Your task to perform on an android device: Open the calendar app, open the side menu, and click the "Day" option Image 0: 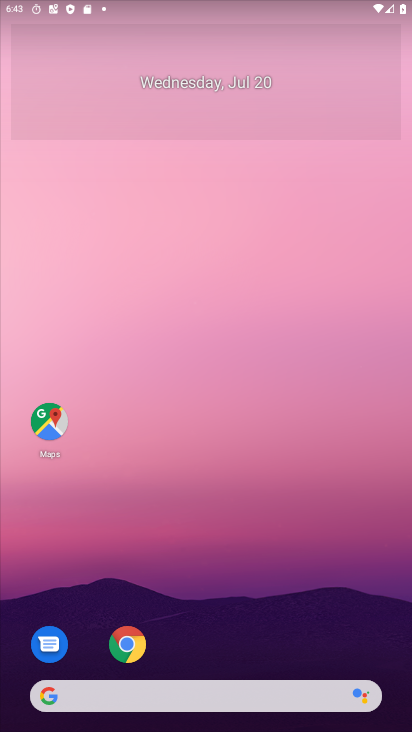
Step 0: press home button
Your task to perform on an android device: Open the calendar app, open the side menu, and click the "Day" option Image 1: 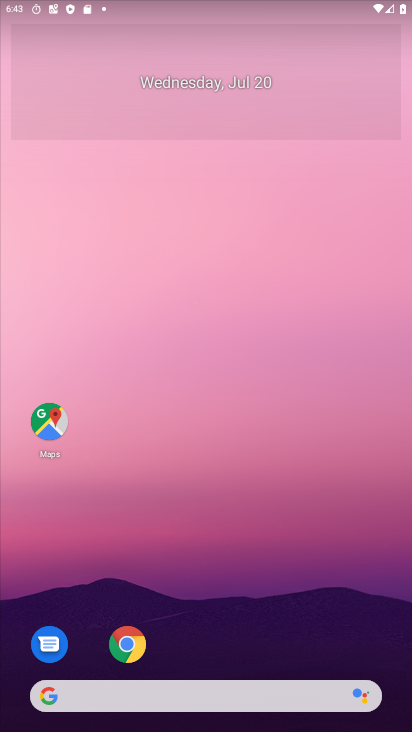
Step 1: drag from (271, 640) to (301, 7)
Your task to perform on an android device: Open the calendar app, open the side menu, and click the "Day" option Image 2: 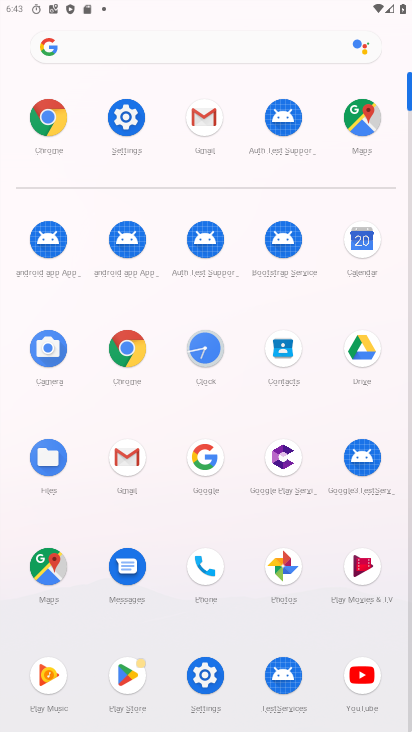
Step 2: click (360, 247)
Your task to perform on an android device: Open the calendar app, open the side menu, and click the "Day" option Image 3: 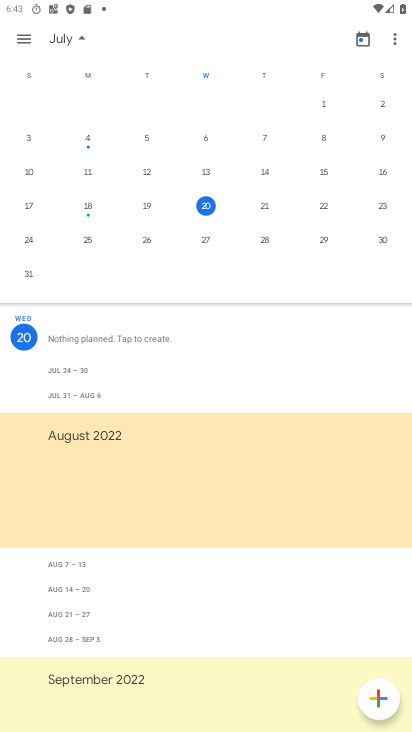
Step 3: click (29, 39)
Your task to perform on an android device: Open the calendar app, open the side menu, and click the "Day" option Image 4: 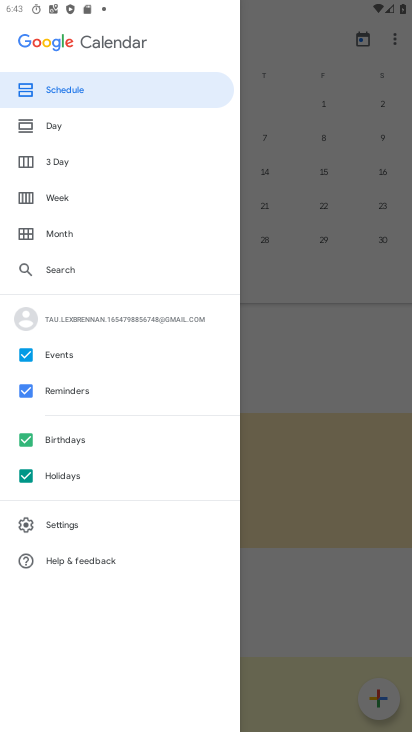
Step 4: click (61, 124)
Your task to perform on an android device: Open the calendar app, open the side menu, and click the "Day" option Image 5: 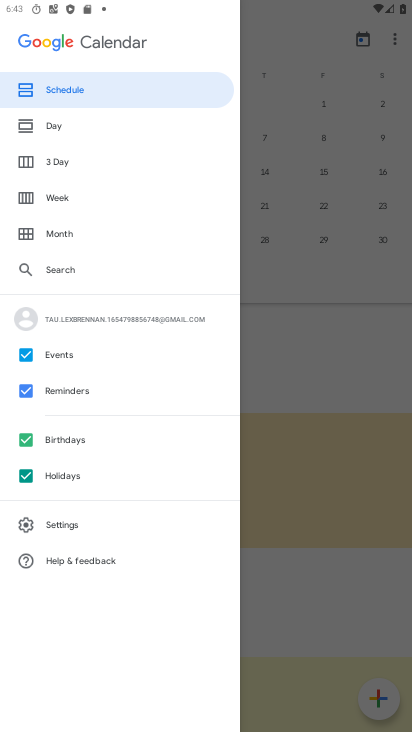
Step 5: click (55, 134)
Your task to perform on an android device: Open the calendar app, open the side menu, and click the "Day" option Image 6: 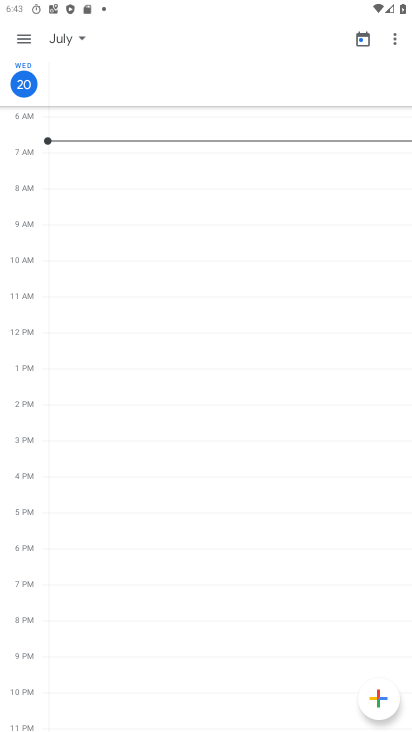
Step 6: task complete